Your task to perform on an android device: Show me popular videos on Youtube Image 0: 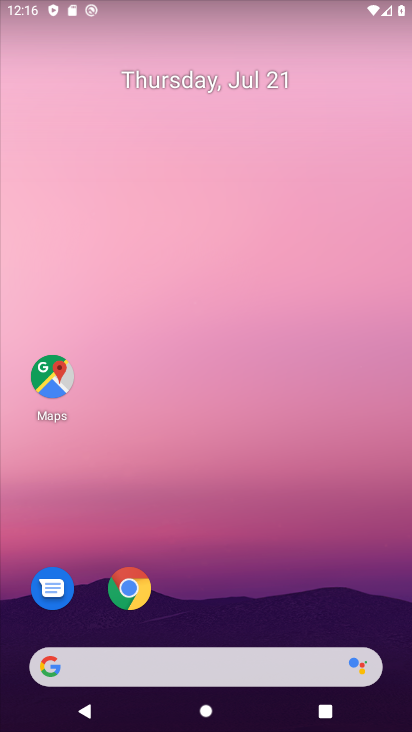
Step 0: drag from (334, 505) to (292, 167)
Your task to perform on an android device: Show me popular videos on Youtube Image 1: 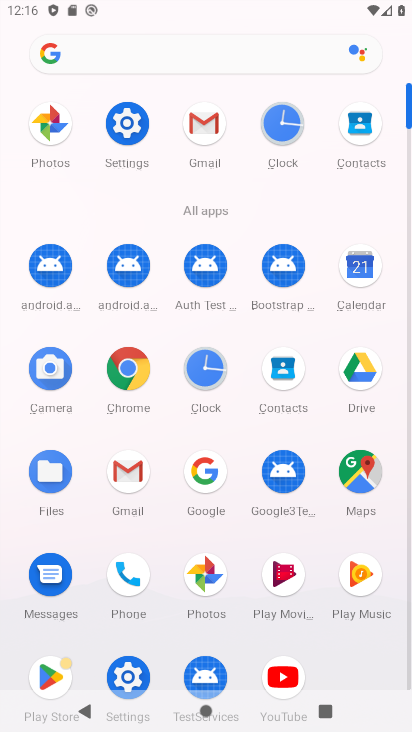
Step 1: click (293, 674)
Your task to perform on an android device: Show me popular videos on Youtube Image 2: 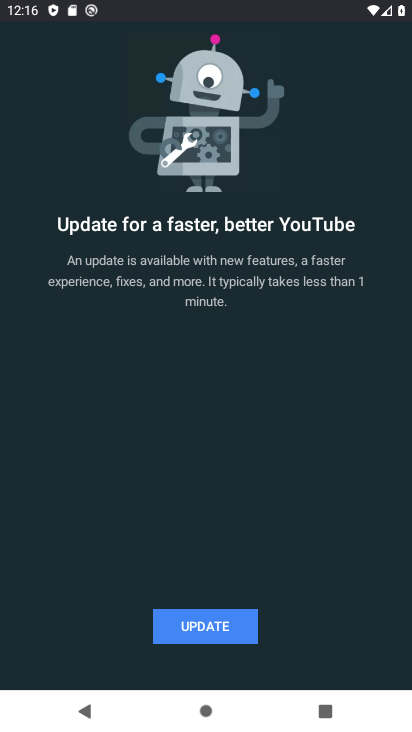
Step 2: task complete